Your task to perform on an android device: Open location settings Image 0: 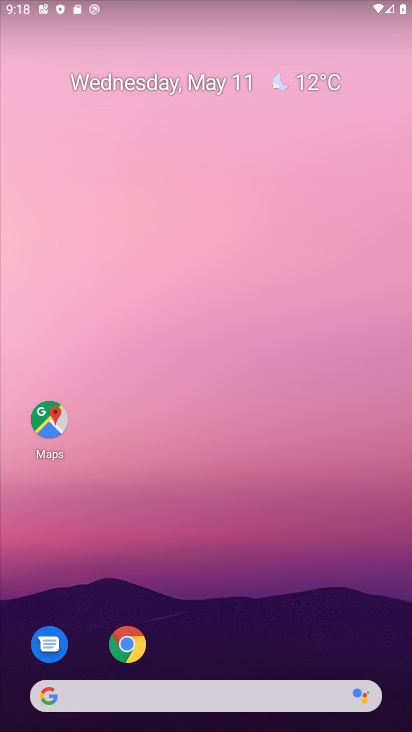
Step 0: drag from (193, 637) to (200, 98)
Your task to perform on an android device: Open location settings Image 1: 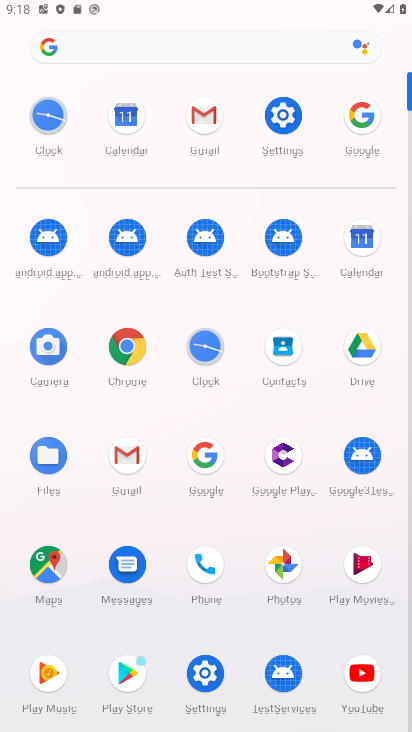
Step 1: click (198, 689)
Your task to perform on an android device: Open location settings Image 2: 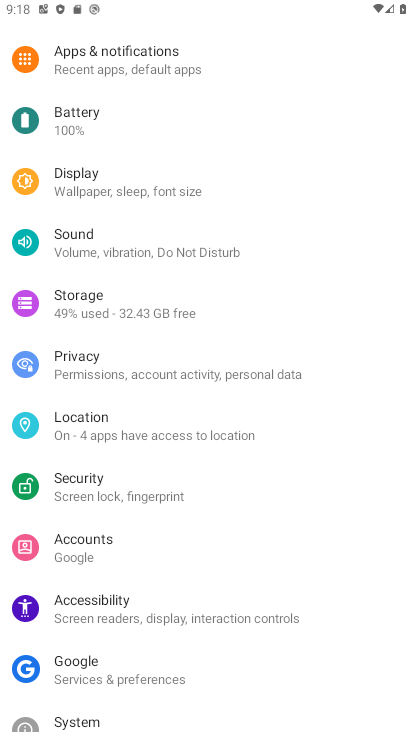
Step 2: click (171, 437)
Your task to perform on an android device: Open location settings Image 3: 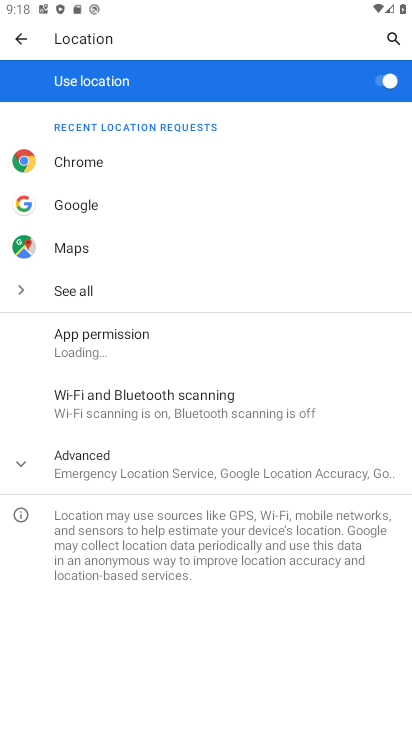
Step 3: click (172, 465)
Your task to perform on an android device: Open location settings Image 4: 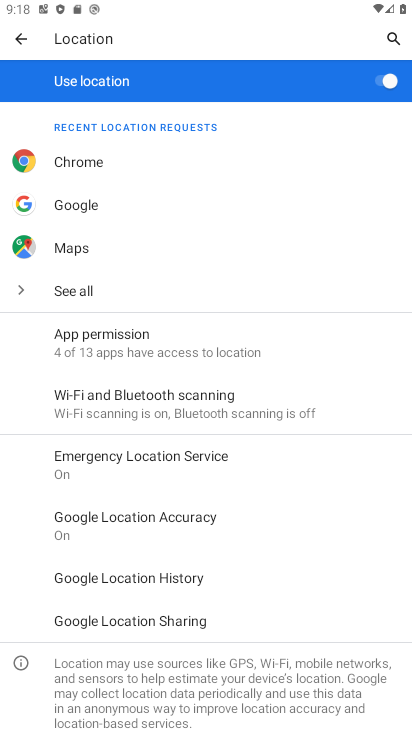
Step 4: task complete